Your task to perform on an android device: Search for vegetarian restaurants on Maps Image 0: 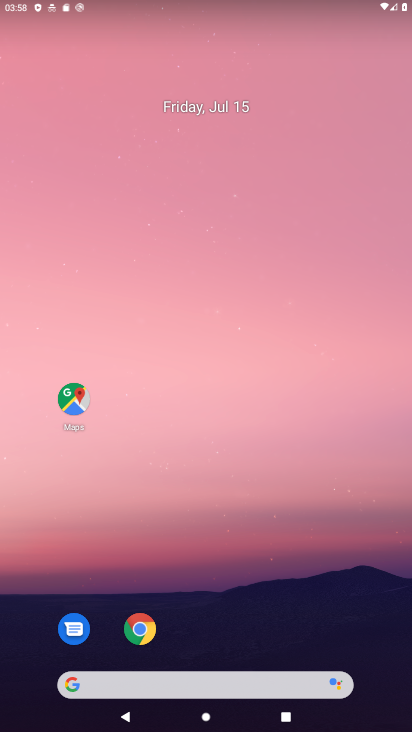
Step 0: drag from (280, 598) to (243, 14)
Your task to perform on an android device: Search for vegetarian restaurants on Maps Image 1: 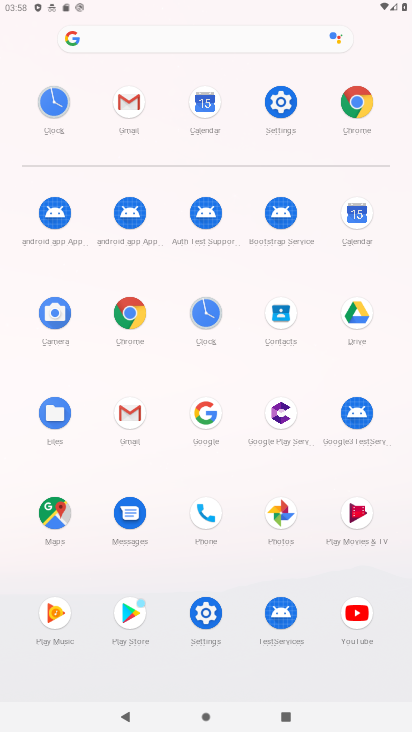
Step 1: click (45, 522)
Your task to perform on an android device: Search for vegetarian restaurants on Maps Image 2: 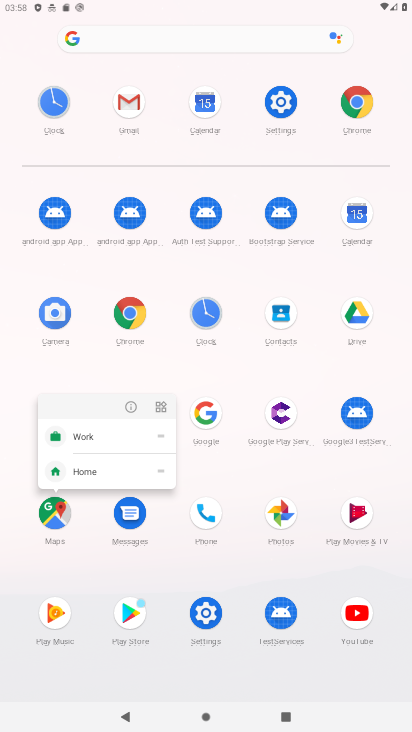
Step 2: click (54, 514)
Your task to perform on an android device: Search for vegetarian restaurants on Maps Image 3: 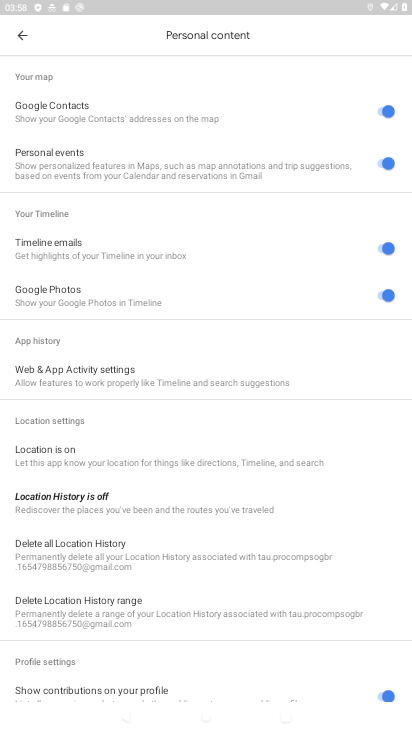
Step 3: click (16, 34)
Your task to perform on an android device: Search for vegetarian restaurants on Maps Image 4: 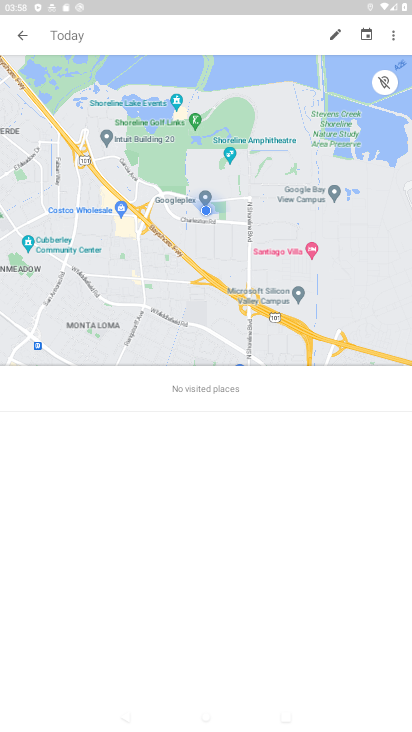
Step 4: click (26, 28)
Your task to perform on an android device: Search for vegetarian restaurants on Maps Image 5: 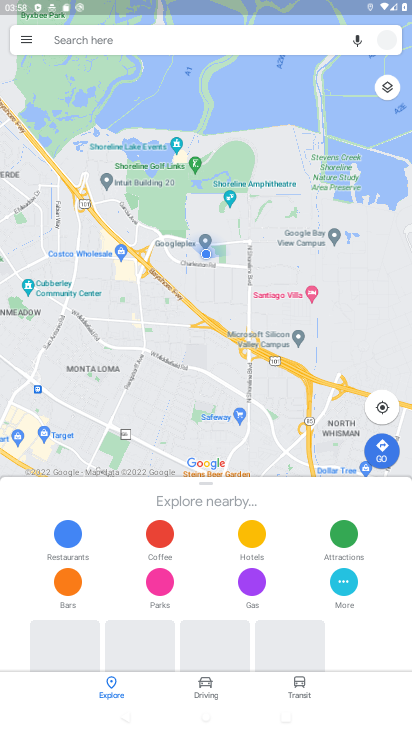
Step 5: click (51, 34)
Your task to perform on an android device: Search for vegetarian restaurants on Maps Image 6: 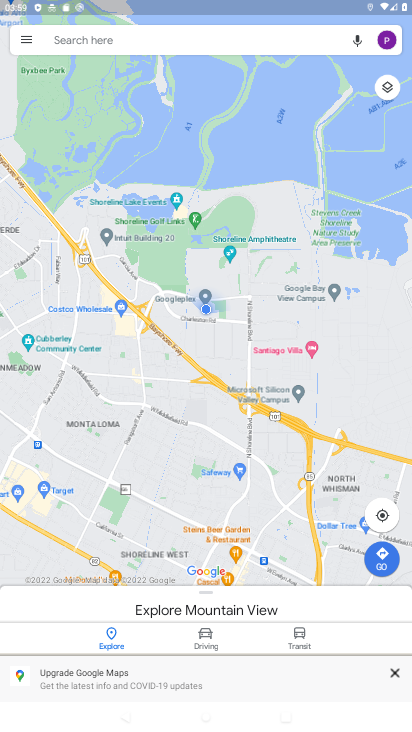
Step 6: click (146, 39)
Your task to perform on an android device: Search for vegetarian restaurants on Maps Image 7: 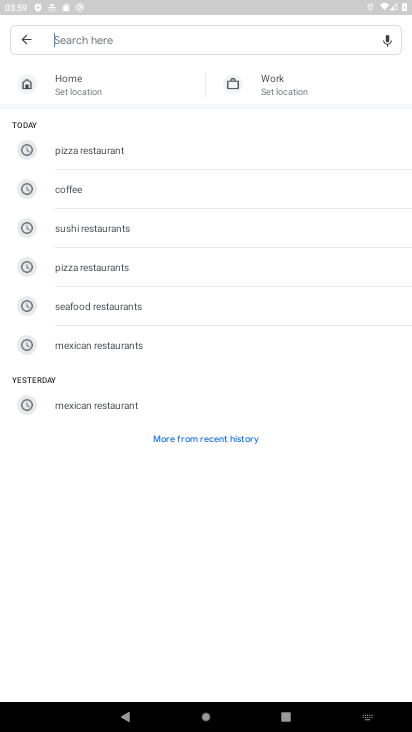
Step 7: type " vegetarian restaurants"
Your task to perform on an android device: Search for vegetarian restaurants on Maps Image 8: 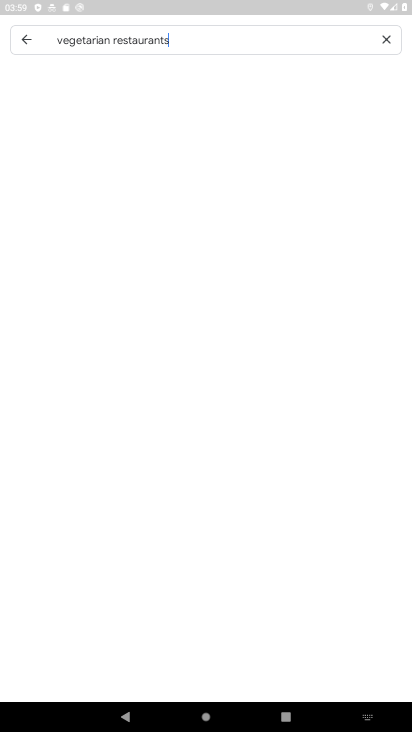
Step 8: type ""
Your task to perform on an android device: Search for vegetarian restaurants on Maps Image 9: 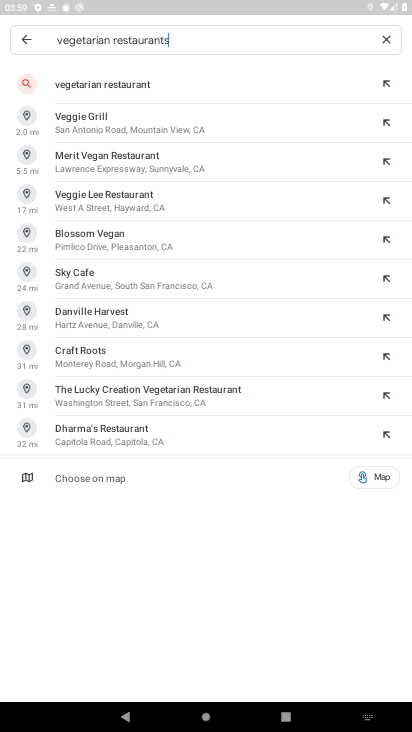
Step 9: click (127, 82)
Your task to perform on an android device: Search for vegetarian restaurants on Maps Image 10: 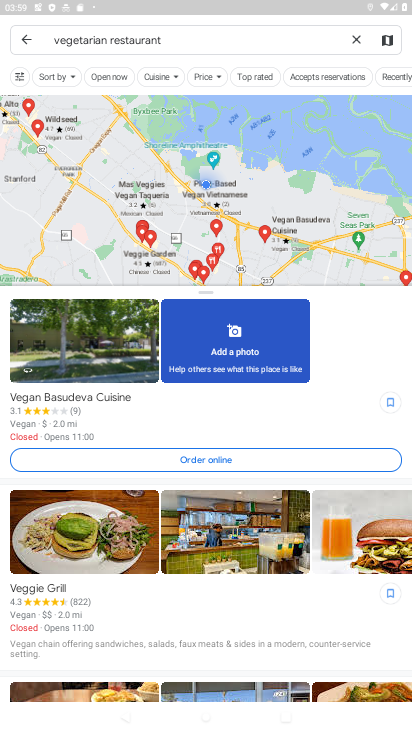
Step 10: task complete